Your task to perform on an android device: turn on the 12-hour format for clock Image 0: 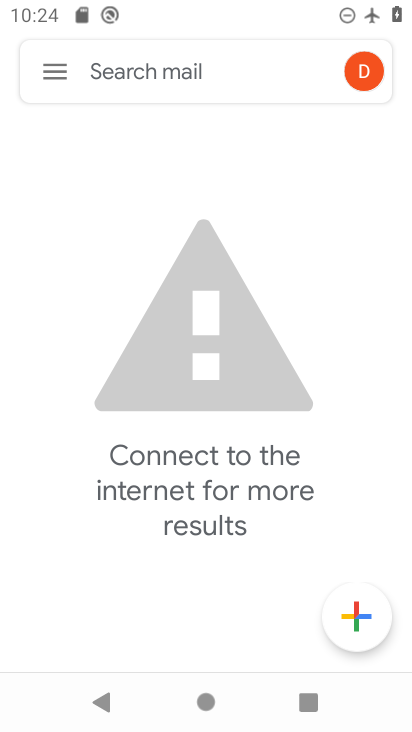
Step 0: press home button
Your task to perform on an android device: turn on the 12-hour format for clock Image 1: 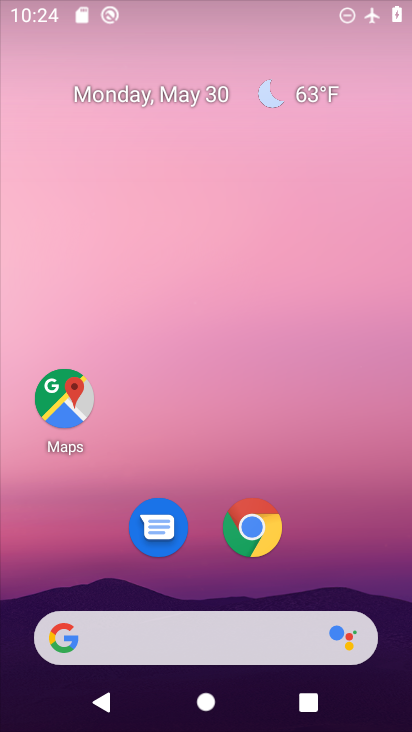
Step 1: drag from (321, 567) to (305, 216)
Your task to perform on an android device: turn on the 12-hour format for clock Image 2: 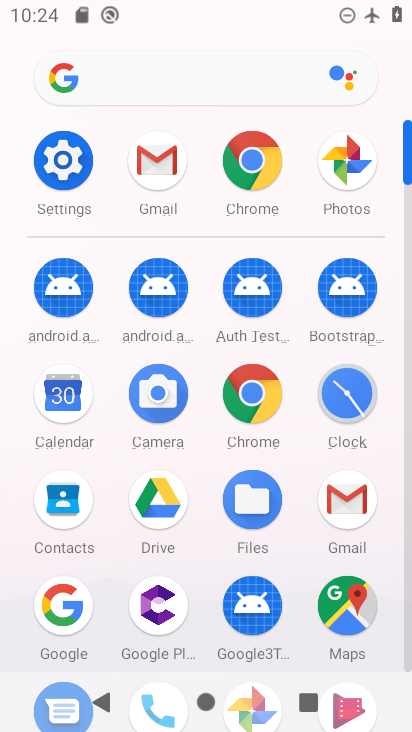
Step 2: click (346, 390)
Your task to perform on an android device: turn on the 12-hour format for clock Image 3: 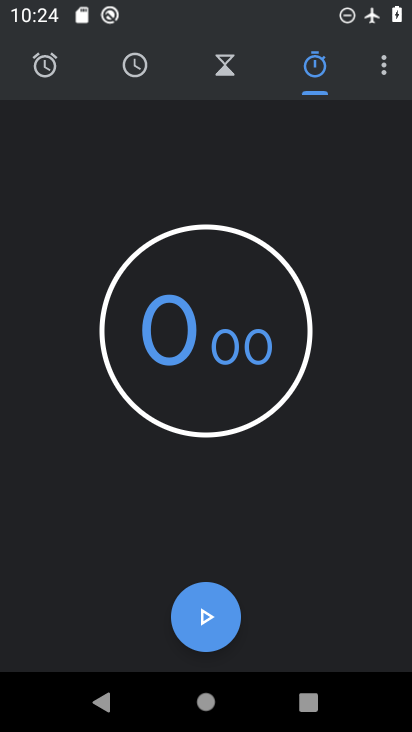
Step 3: click (381, 58)
Your task to perform on an android device: turn on the 12-hour format for clock Image 4: 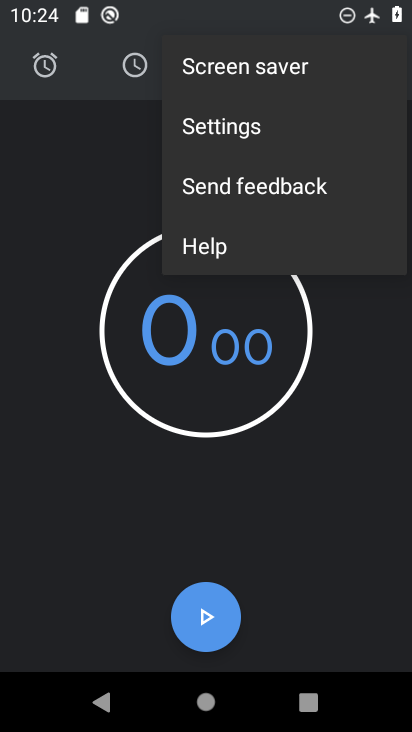
Step 4: click (262, 123)
Your task to perform on an android device: turn on the 12-hour format for clock Image 5: 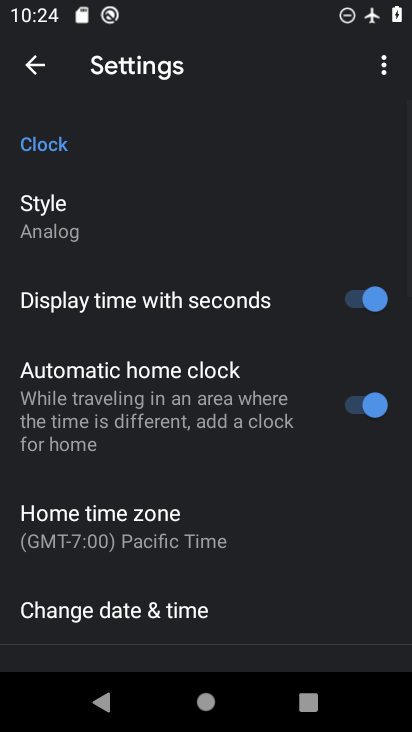
Step 5: drag from (208, 486) to (235, 178)
Your task to perform on an android device: turn on the 12-hour format for clock Image 6: 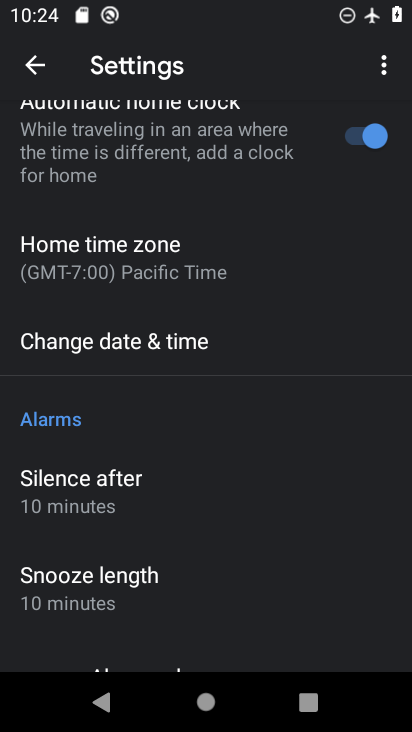
Step 6: drag from (170, 491) to (208, 163)
Your task to perform on an android device: turn on the 12-hour format for clock Image 7: 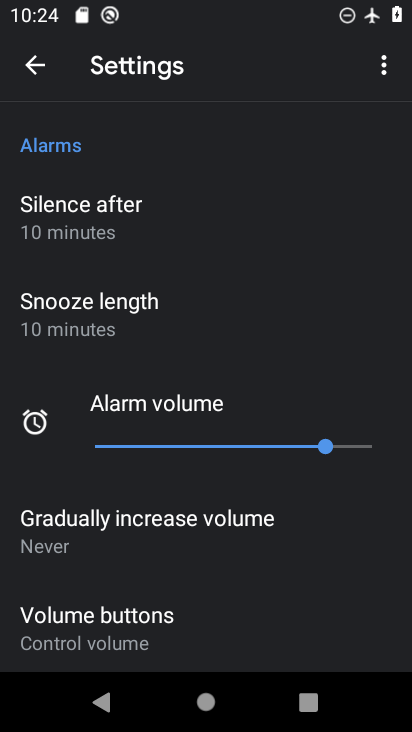
Step 7: drag from (157, 547) to (208, 220)
Your task to perform on an android device: turn on the 12-hour format for clock Image 8: 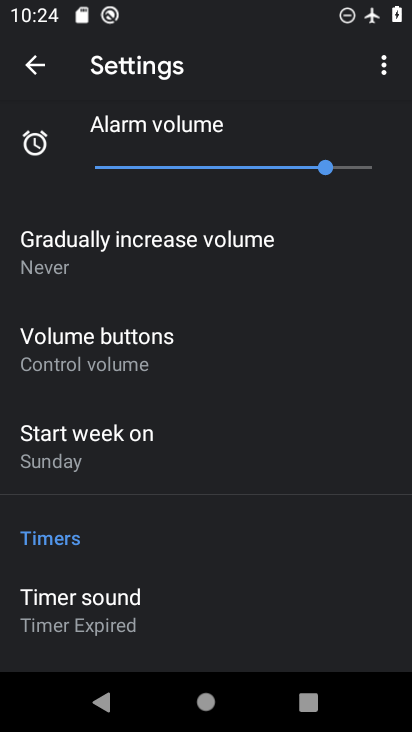
Step 8: drag from (130, 133) to (166, 494)
Your task to perform on an android device: turn on the 12-hour format for clock Image 9: 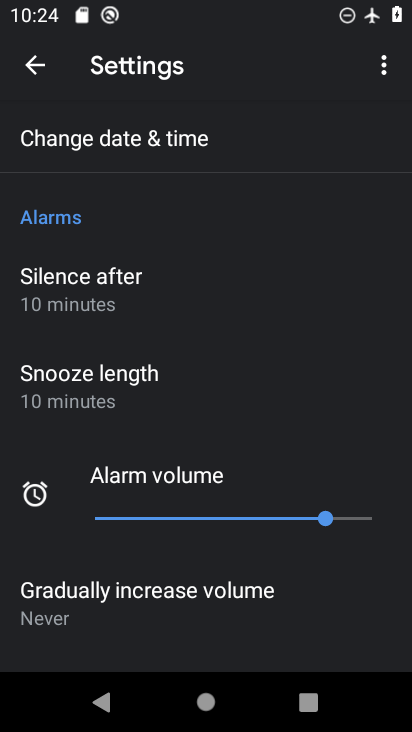
Step 9: click (176, 142)
Your task to perform on an android device: turn on the 12-hour format for clock Image 10: 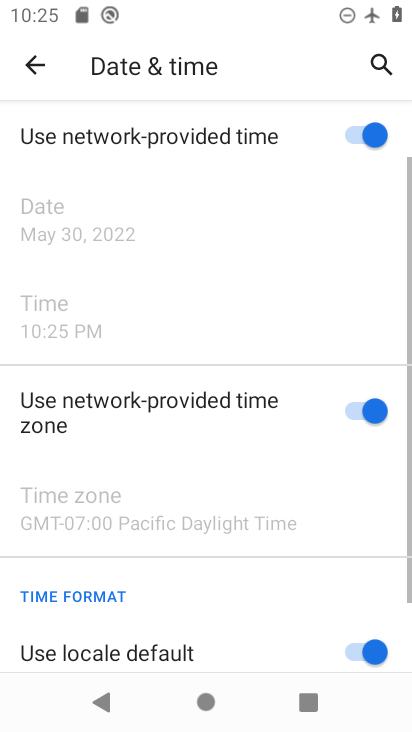
Step 10: drag from (231, 564) to (257, 280)
Your task to perform on an android device: turn on the 12-hour format for clock Image 11: 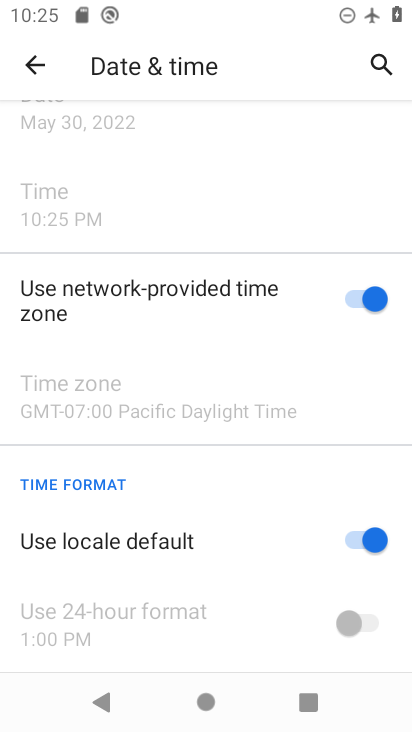
Step 11: click (366, 532)
Your task to perform on an android device: turn on the 12-hour format for clock Image 12: 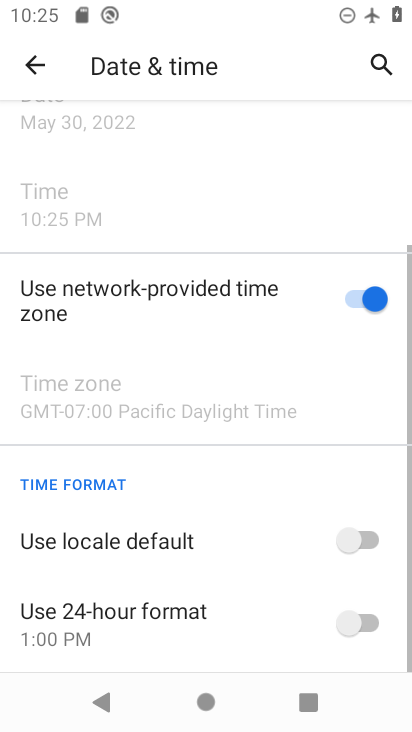
Step 12: click (361, 626)
Your task to perform on an android device: turn on the 12-hour format for clock Image 13: 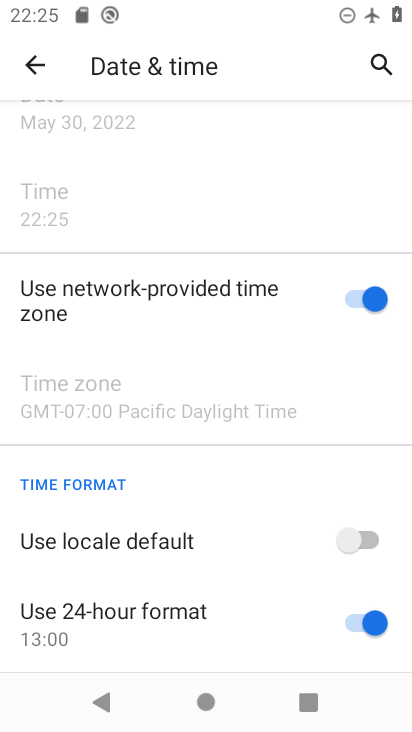
Step 13: task complete